Your task to perform on an android device: turn pop-ups on in chrome Image 0: 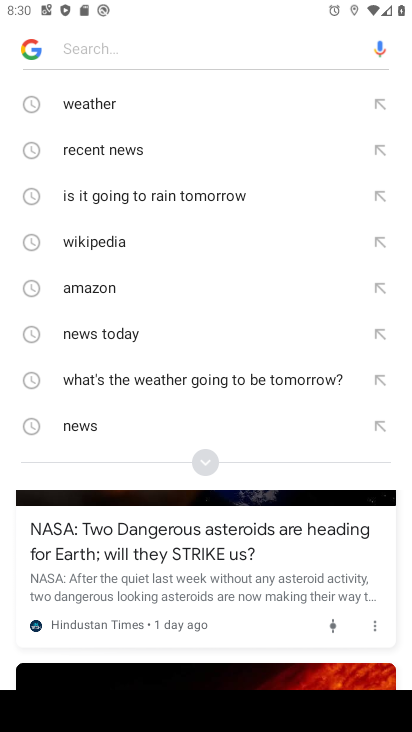
Step 0: press home button
Your task to perform on an android device: turn pop-ups on in chrome Image 1: 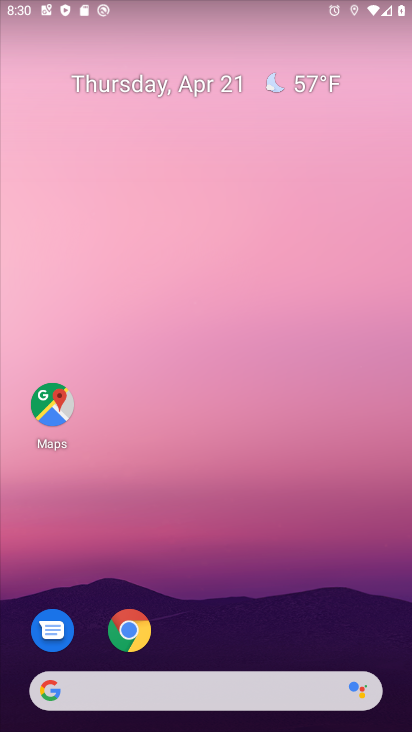
Step 1: drag from (318, 573) to (241, 63)
Your task to perform on an android device: turn pop-ups on in chrome Image 2: 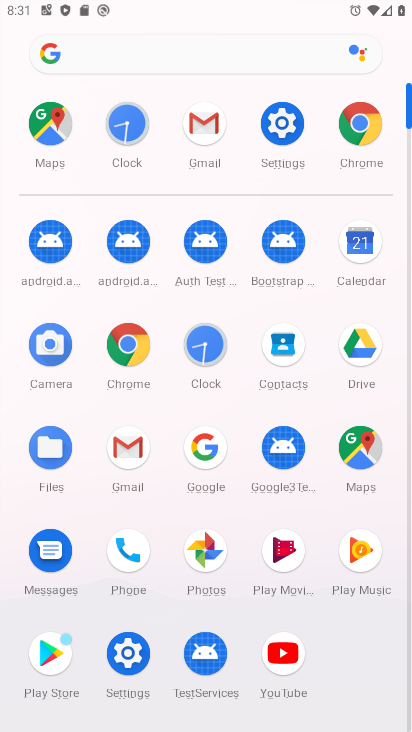
Step 2: click (363, 116)
Your task to perform on an android device: turn pop-ups on in chrome Image 3: 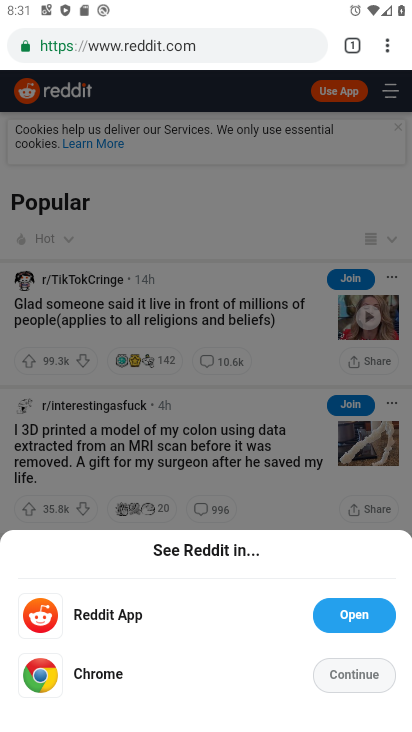
Step 3: press back button
Your task to perform on an android device: turn pop-ups on in chrome Image 4: 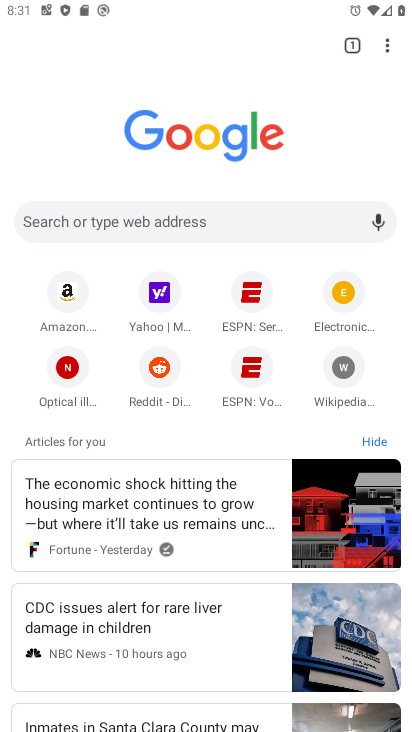
Step 4: click (386, 43)
Your task to perform on an android device: turn pop-ups on in chrome Image 5: 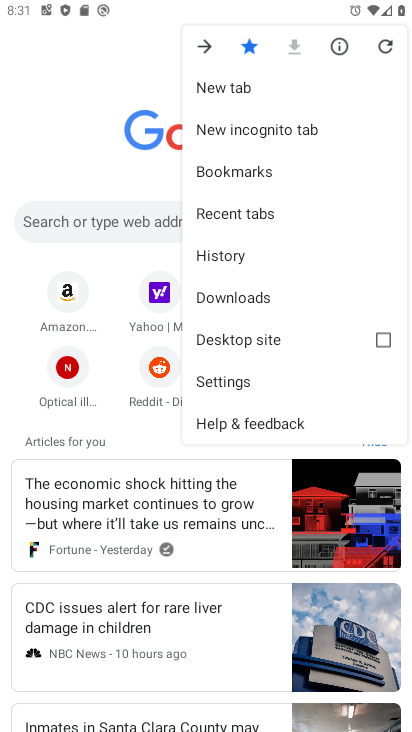
Step 5: click (232, 386)
Your task to perform on an android device: turn pop-ups on in chrome Image 6: 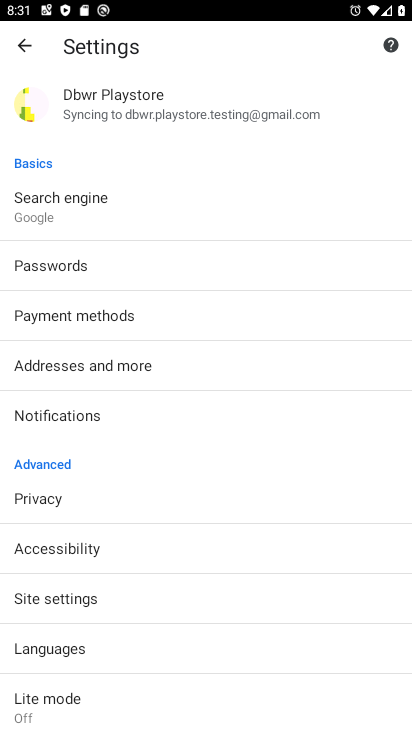
Step 6: click (134, 598)
Your task to perform on an android device: turn pop-ups on in chrome Image 7: 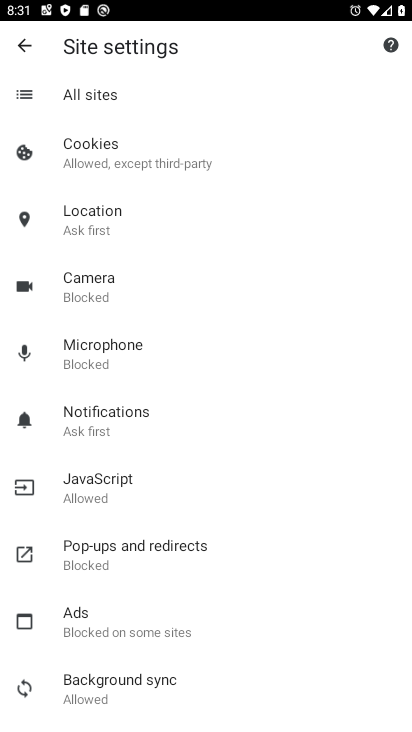
Step 7: click (143, 551)
Your task to perform on an android device: turn pop-ups on in chrome Image 8: 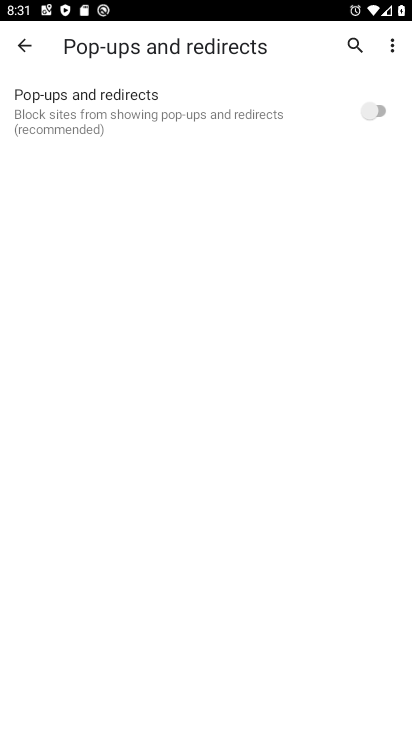
Step 8: click (366, 106)
Your task to perform on an android device: turn pop-ups on in chrome Image 9: 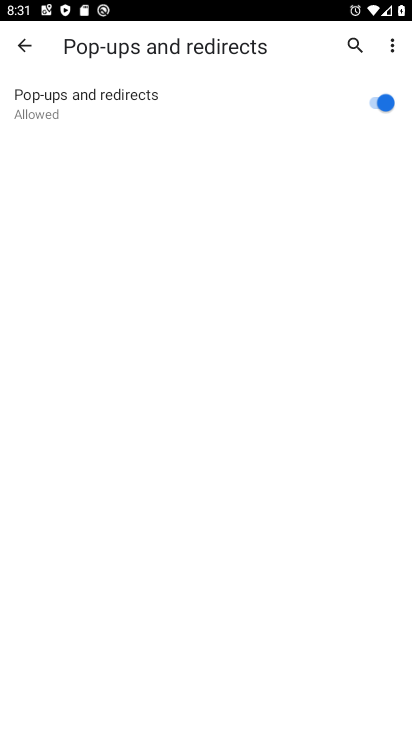
Step 9: task complete